Your task to perform on an android device: Go to Maps Image 0: 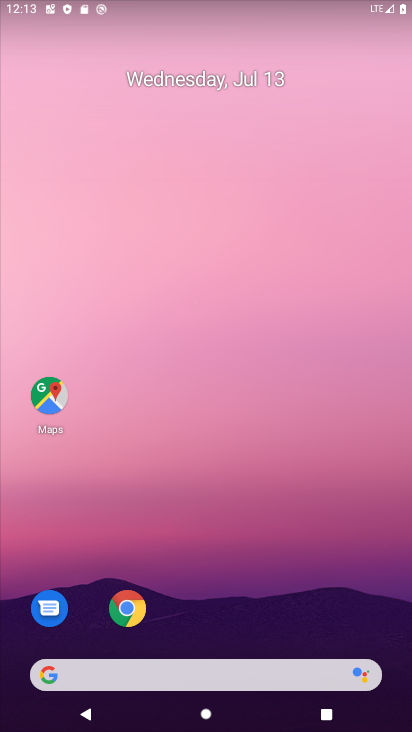
Step 0: click (44, 402)
Your task to perform on an android device: Go to Maps Image 1: 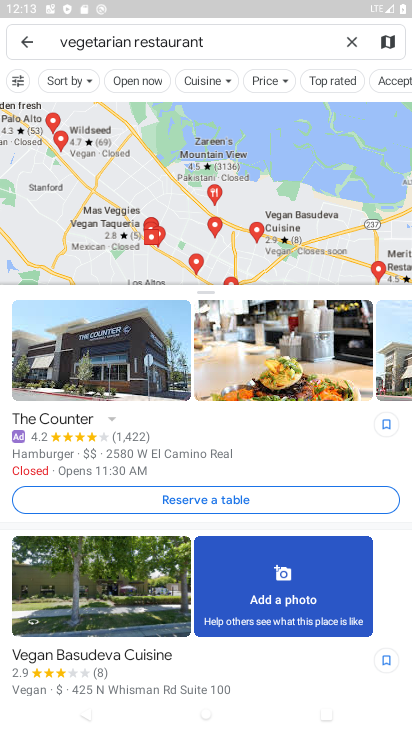
Step 1: task complete